Your task to perform on an android device: change alarm snooze length Image 0: 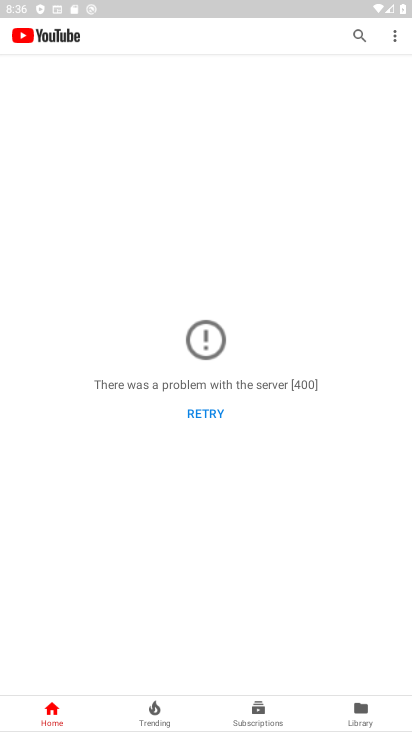
Step 0: press back button
Your task to perform on an android device: change alarm snooze length Image 1: 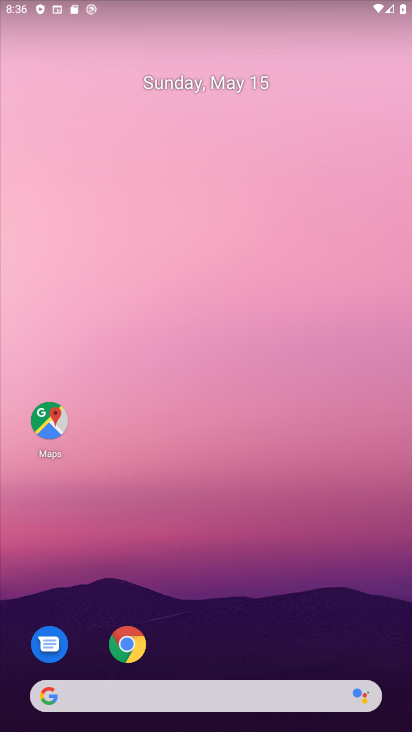
Step 1: drag from (249, 676) to (122, 0)
Your task to perform on an android device: change alarm snooze length Image 2: 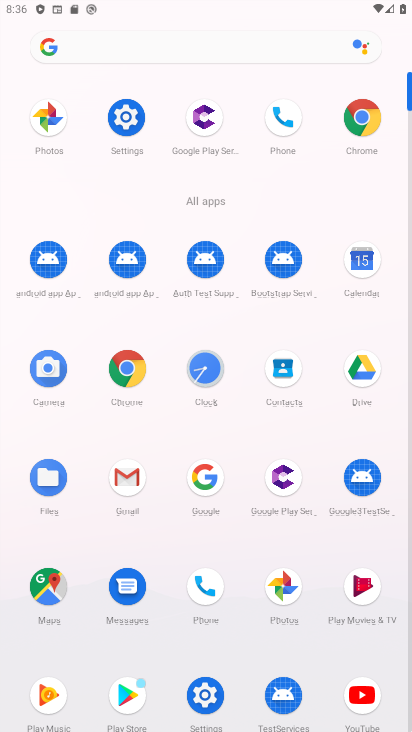
Step 2: click (200, 368)
Your task to perform on an android device: change alarm snooze length Image 3: 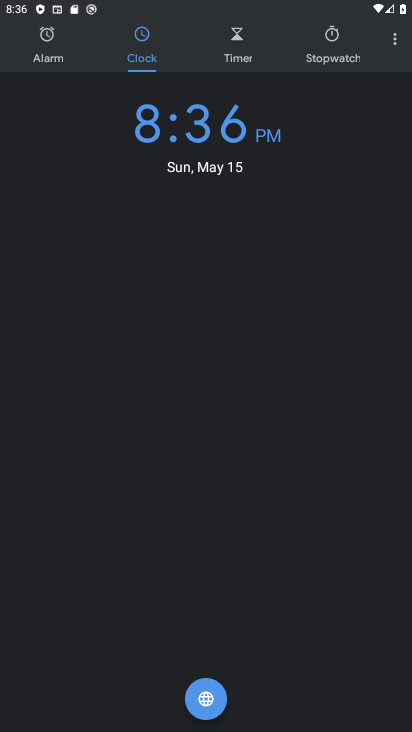
Step 3: click (396, 44)
Your task to perform on an android device: change alarm snooze length Image 4: 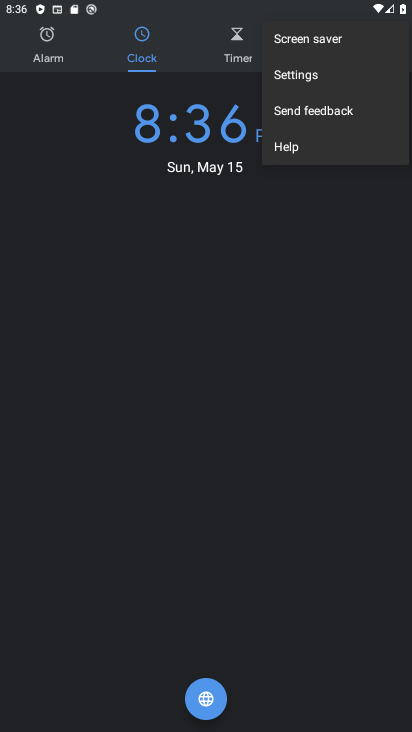
Step 4: click (286, 73)
Your task to perform on an android device: change alarm snooze length Image 5: 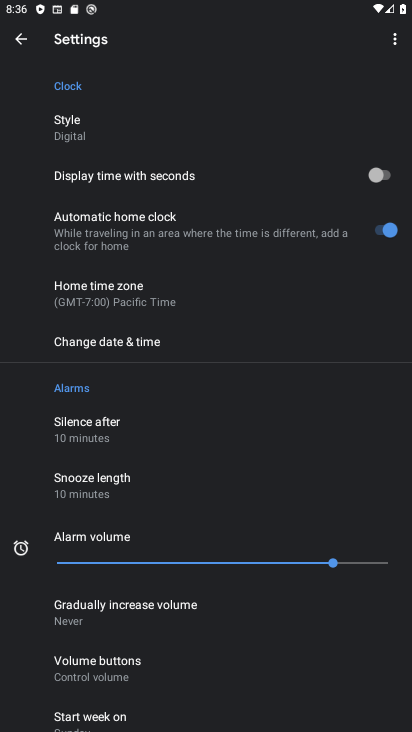
Step 5: click (129, 476)
Your task to perform on an android device: change alarm snooze length Image 6: 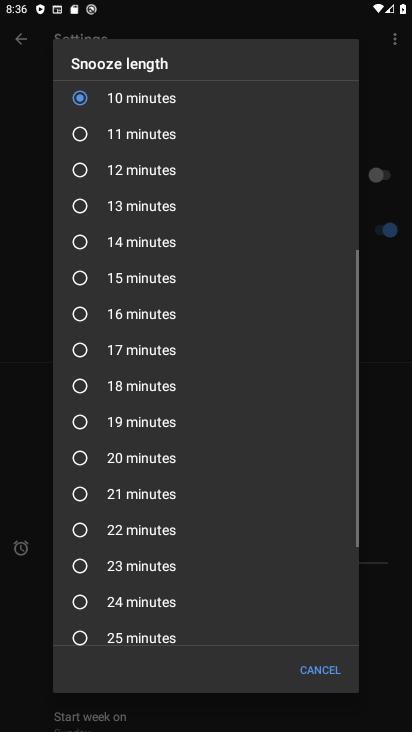
Step 6: click (101, 126)
Your task to perform on an android device: change alarm snooze length Image 7: 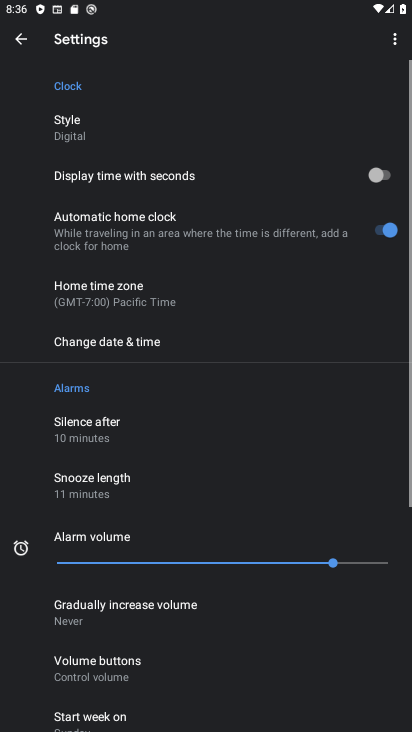
Step 7: task complete